Your task to perform on an android device: Go to eBay Image 0: 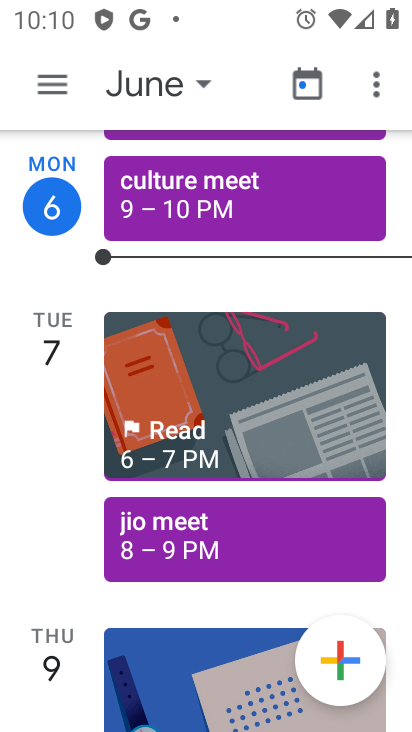
Step 0: press home button
Your task to perform on an android device: Go to eBay Image 1: 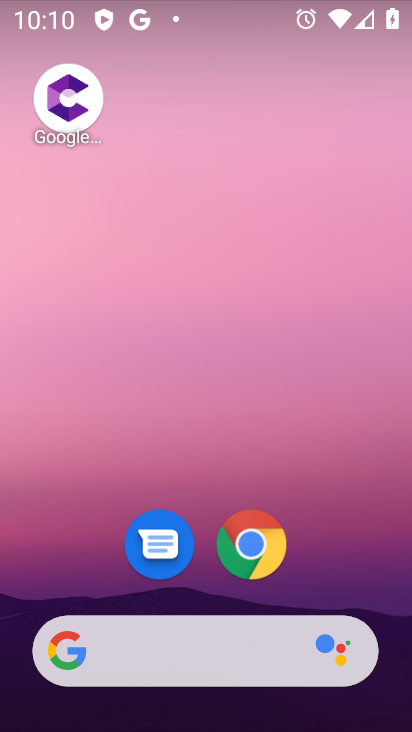
Step 1: click (181, 659)
Your task to perform on an android device: Go to eBay Image 2: 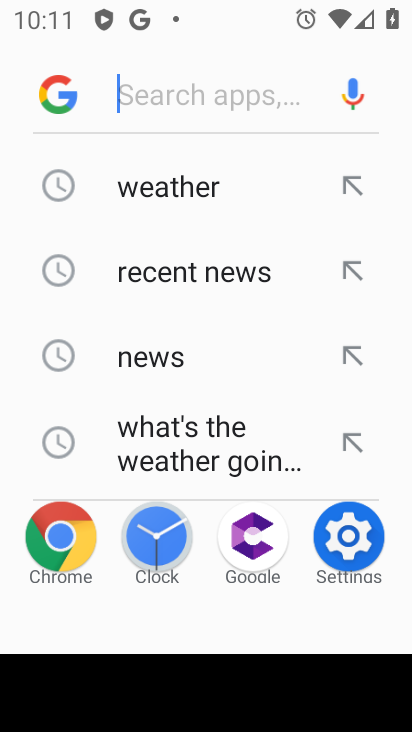
Step 2: type "eBay"
Your task to perform on an android device: Go to eBay Image 3: 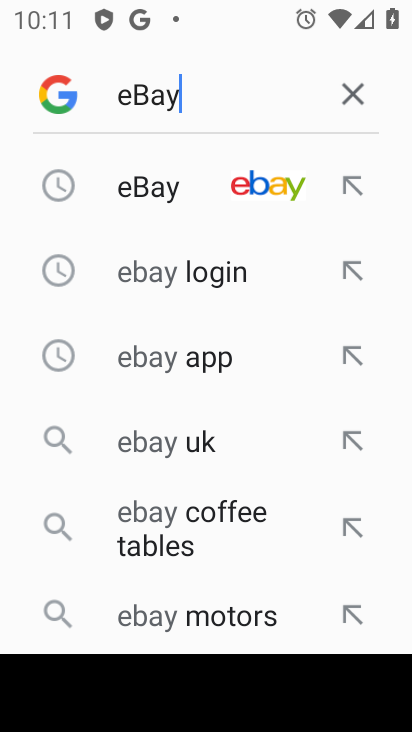
Step 3: click (156, 197)
Your task to perform on an android device: Go to eBay Image 4: 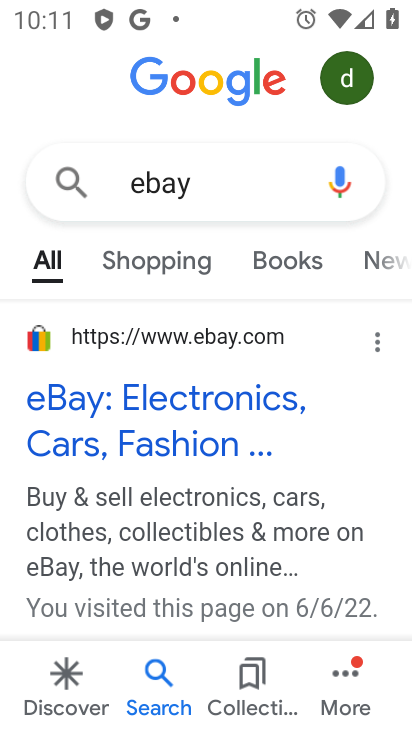
Step 4: click (134, 426)
Your task to perform on an android device: Go to eBay Image 5: 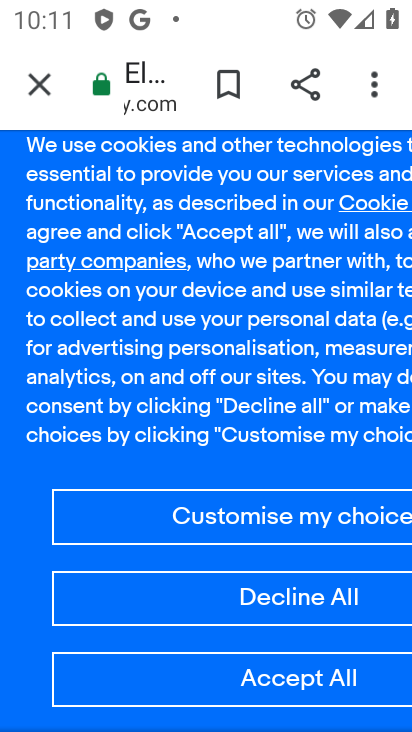
Step 5: click (340, 687)
Your task to perform on an android device: Go to eBay Image 6: 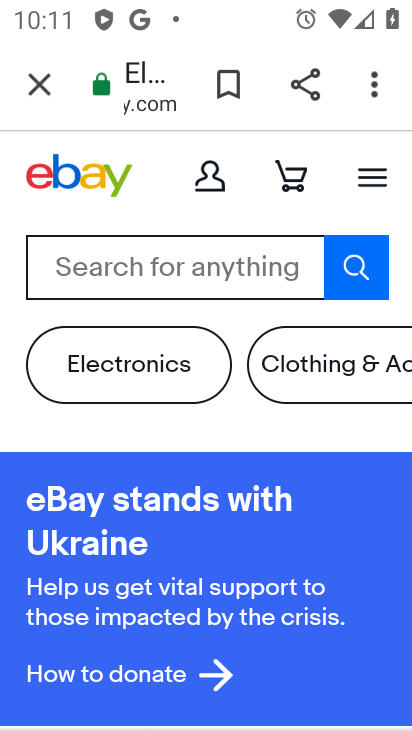
Step 6: task complete